Your task to perform on an android device: Go to Maps Image 0: 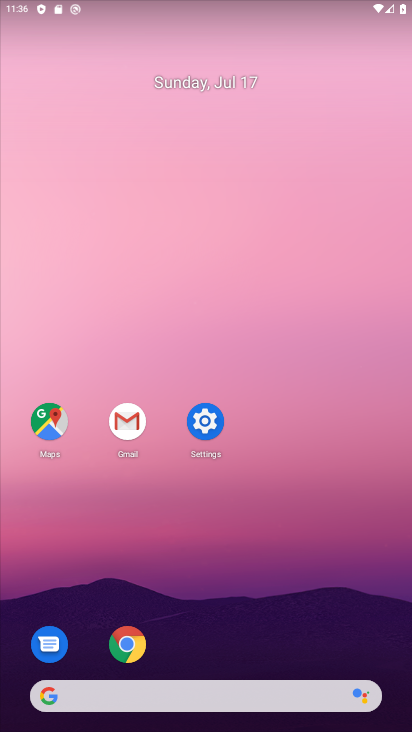
Step 0: click (62, 439)
Your task to perform on an android device: Go to Maps Image 1: 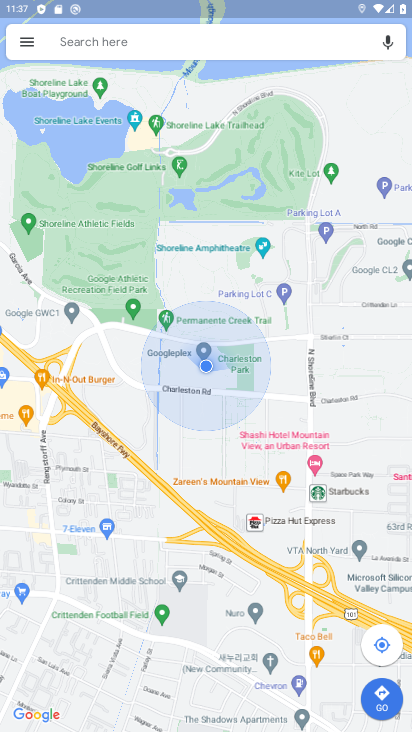
Step 1: task complete